Your task to perform on an android device: change the clock display to analog Image 0: 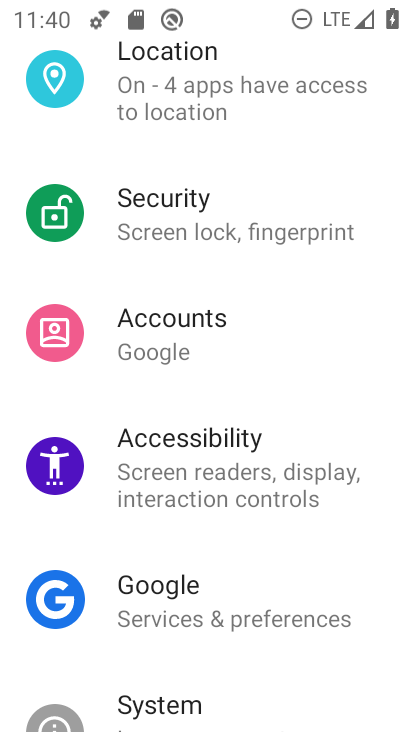
Step 0: press home button
Your task to perform on an android device: change the clock display to analog Image 1: 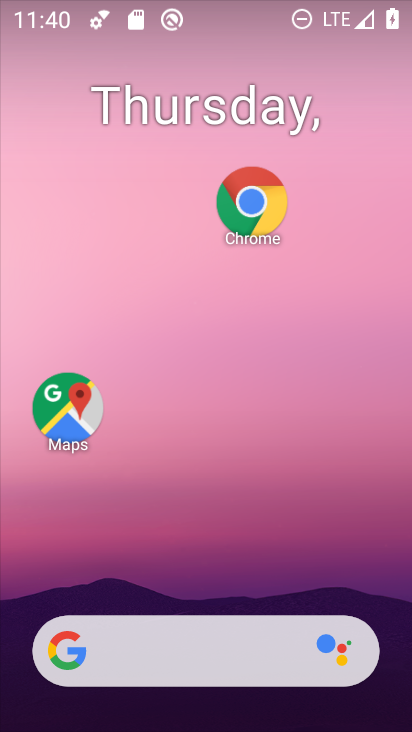
Step 1: drag from (166, 595) to (157, 11)
Your task to perform on an android device: change the clock display to analog Image 2: 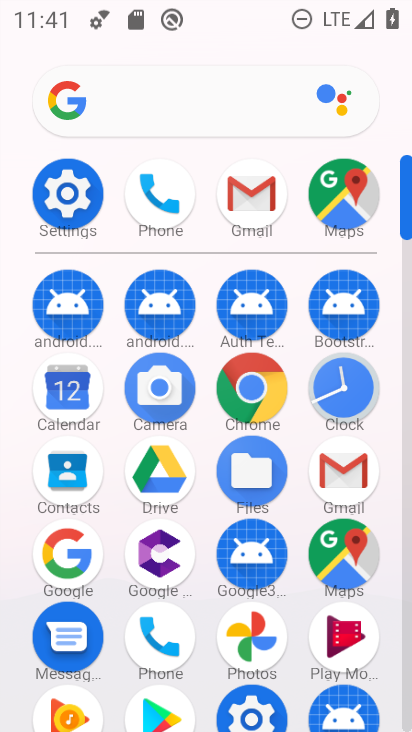
Step 2: click (337, 407)
Your task to perform on an android device: change the clock display to analog Image 3: 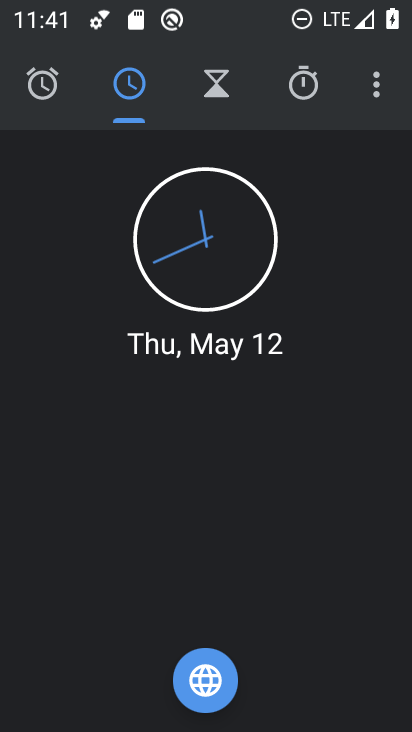
Step 3: click (371, 90)
Your task to perform on an android device: change the clock display to analog Image 4: 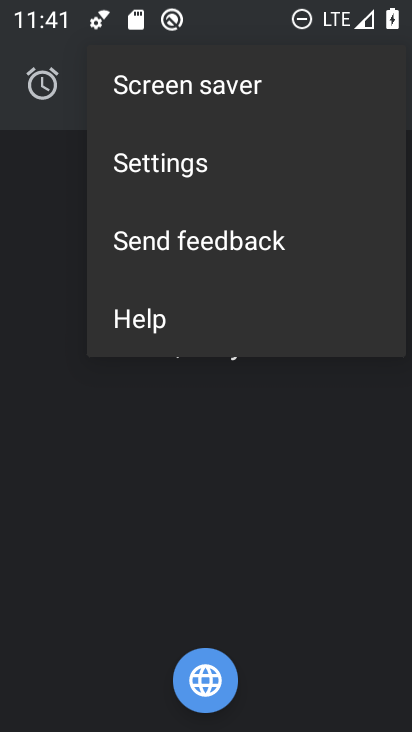
Step 4: click (185, 154)
Your task to perform on an android device: change the clock display to analog Image 5: 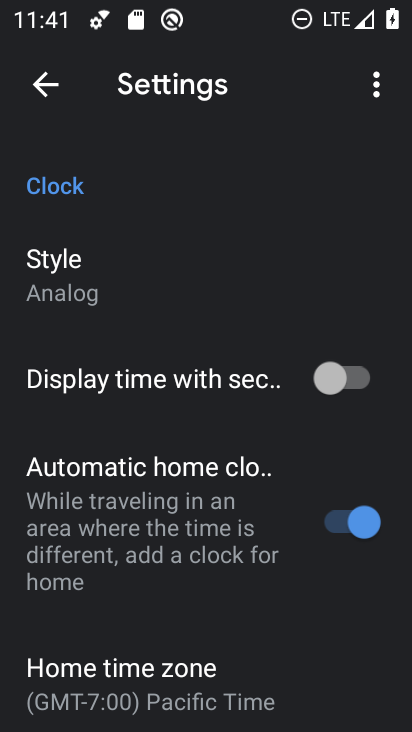
Step 5: task complete